Your task to perform on an android device: turn off picture-in-picture Image 0: 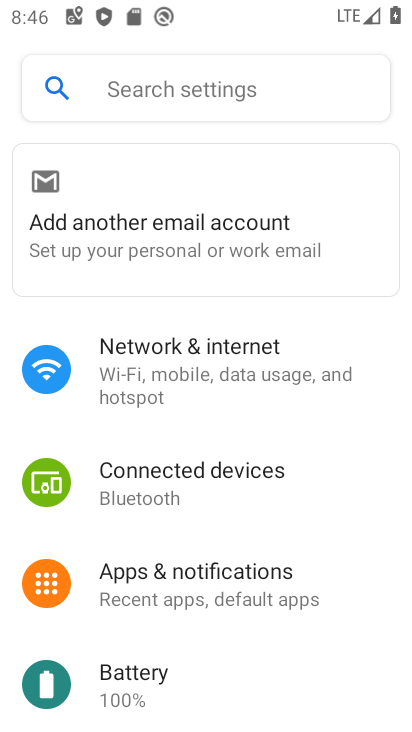
Step 0: drag from (147, 669) to (165, 454)
Your task to perform on an android device: turn off picture-in-picture Image 1: 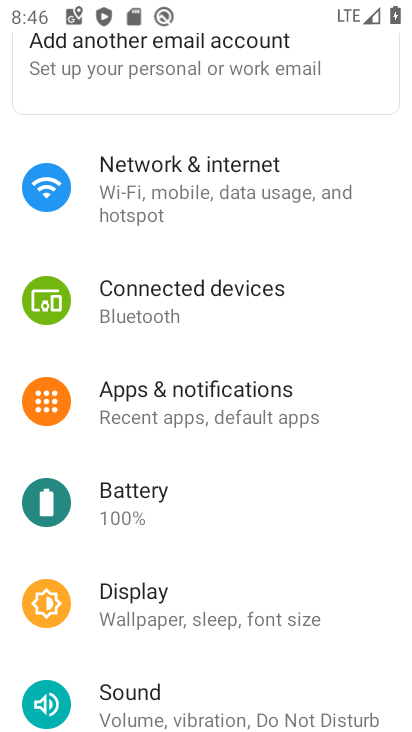
Step 1: click (189, 391)
Your task to perform on an android device: turn off picture-in-picture Image 2: 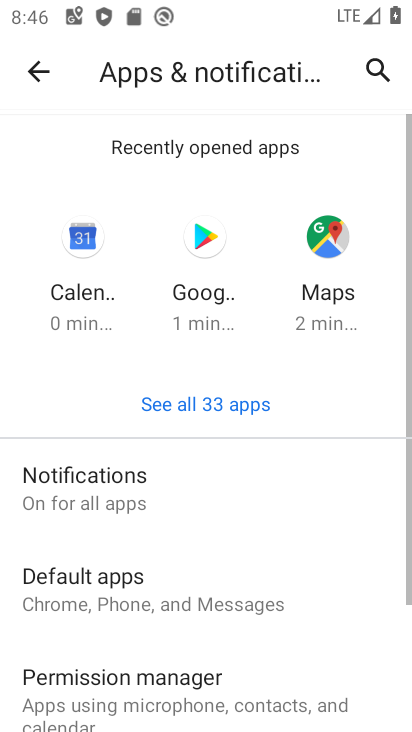
Step 2: drag from (149, 631) to (170, 346)
Your task to perform on an android device: turn off picture-in-picture Image 3: 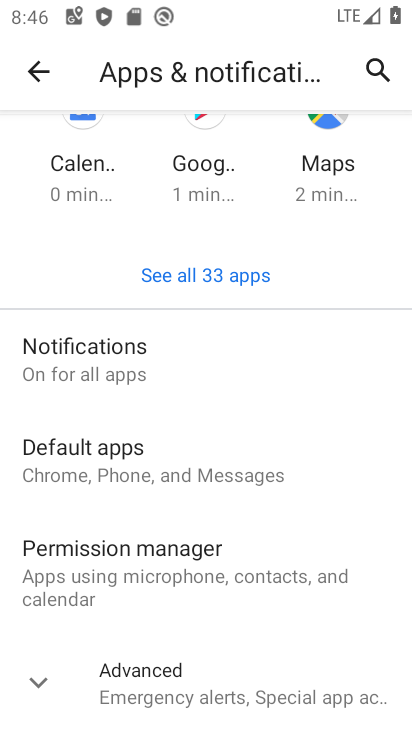
Step 3: click (155, 675)
Your task to perform on an android device: turn off picture-in-picture Image 4: 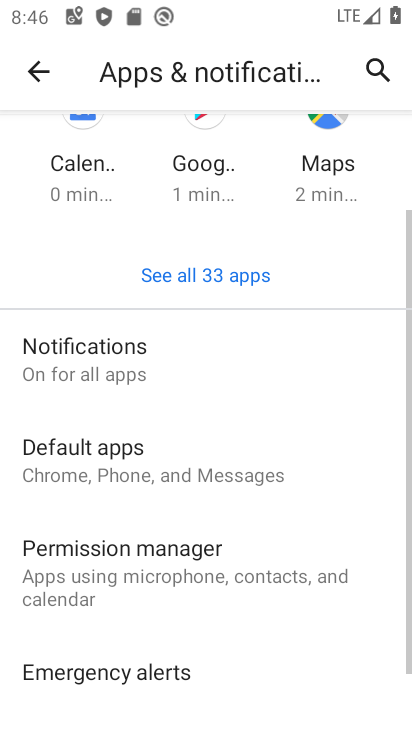
Step 4: drag from (167, 681) to (192, 345)
Your task to perform on an android device: turn off picture-in-picture Image 5: 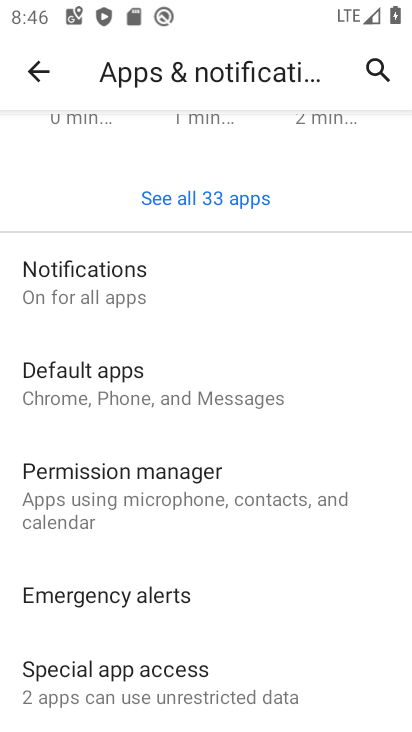
Step 5: click (111, 675)
Your task to perform on an android device: turn off picture-in-picture Image 6: 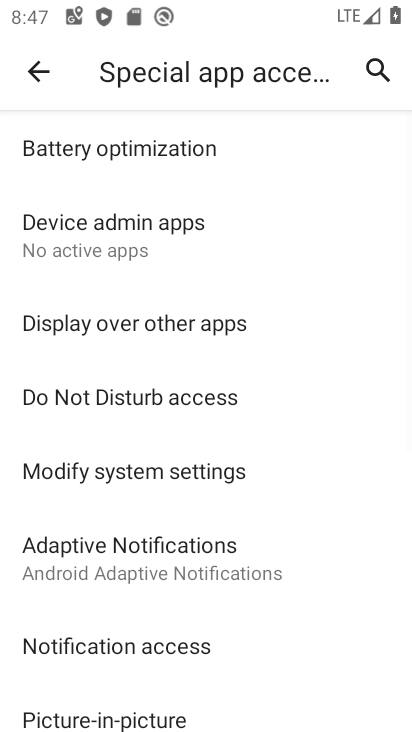
Step 6: drag from (206, 685) to (221, 247)
Your task to perform on an android device: turn off picture-in-picture Image 7: 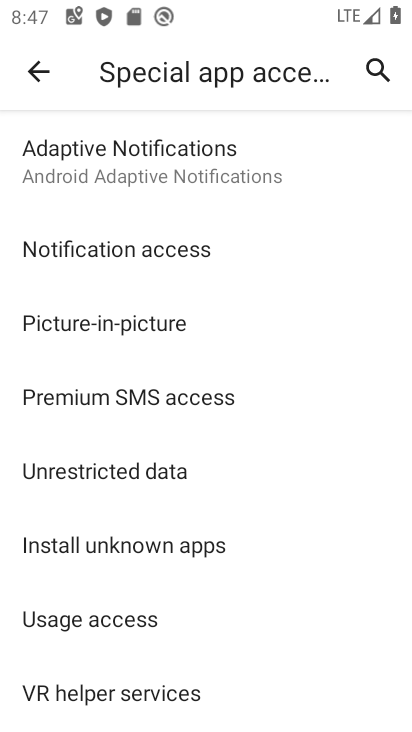
Step 7: click (133, 318)
Your task to perform on an android device: turn off picture-in-picture Image 8: 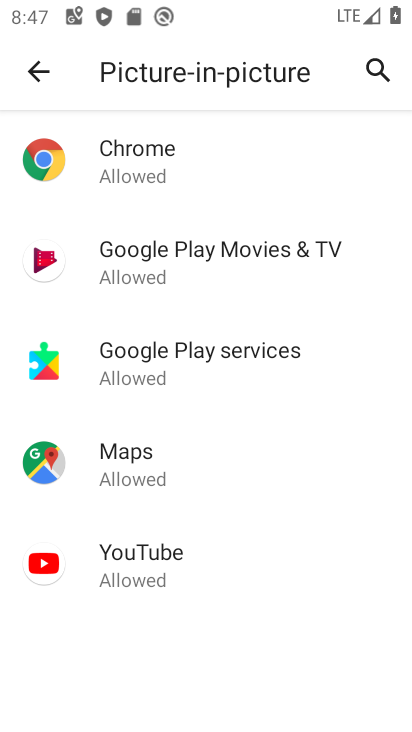
Step 8: click (124, 564)
Your task to perform on an android device: turn off picture-in-picture Image 9: 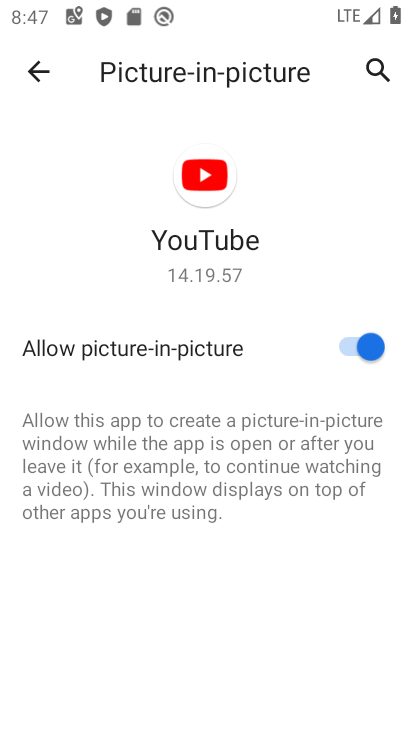
Step 9: click (355, 344)
Your task to perform on an android device: turn off picture-in-picture Image 10: 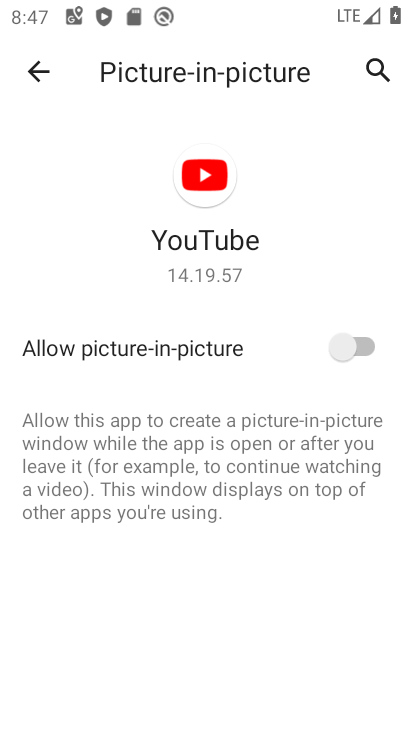
Step 10: task complete